Your task to perform on an android device: Do I have any events tomorrow? Image 0: 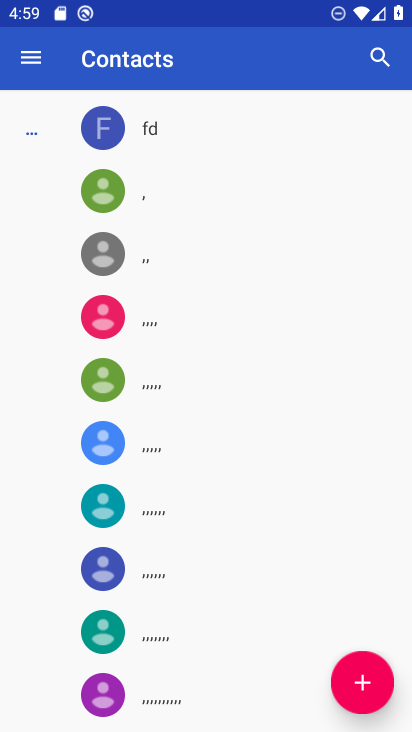
Step 0: press home button
Your task to perform on an android device: Do I have any events tomorrow? Image 1: 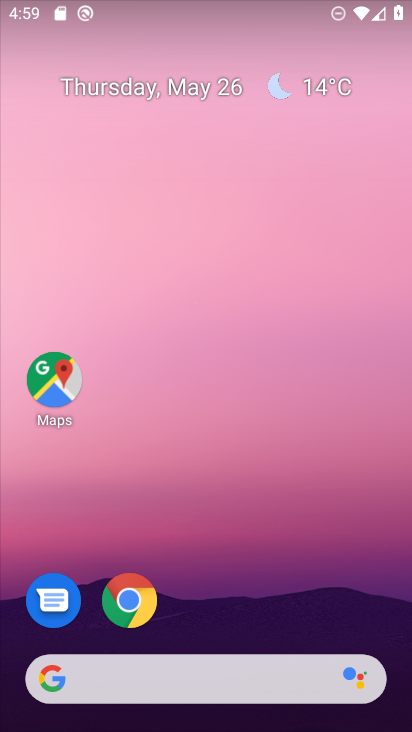
Step 1: click (138, 93)
Your task to perform on an android device: Do I have any events tomorrow? Image 2: 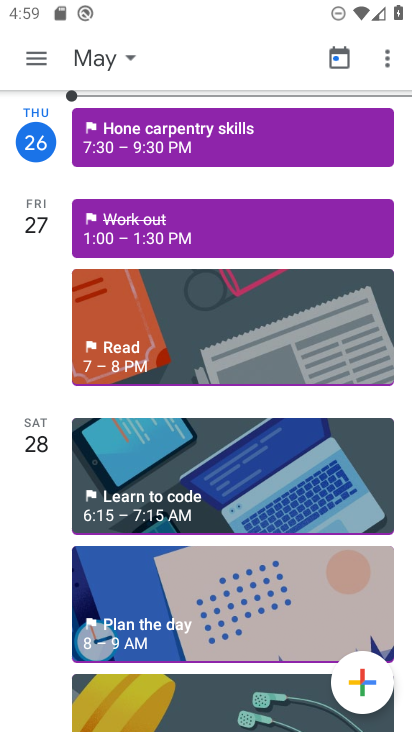
Step 2: click (119, 38)
Your task to perform on an android device: Do I have any events tomorrow? Image 3: 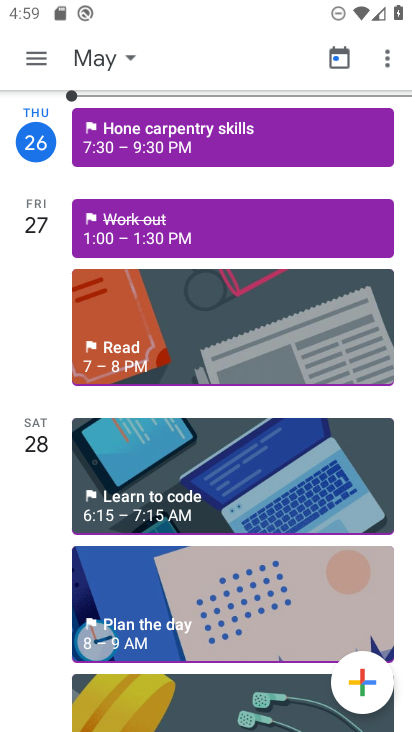
Step 3: click (108, 60)
Your task to perform on an android device: Do I have any events tomorrow? Image 4: 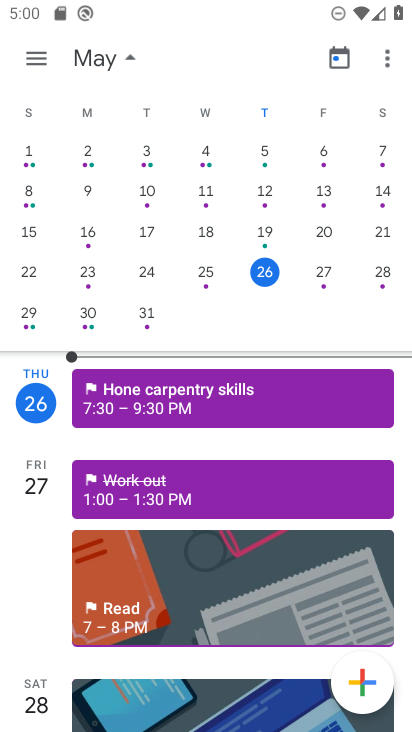
Step 4: task complete